Your task to perform on an android device: check data usage Image 0: 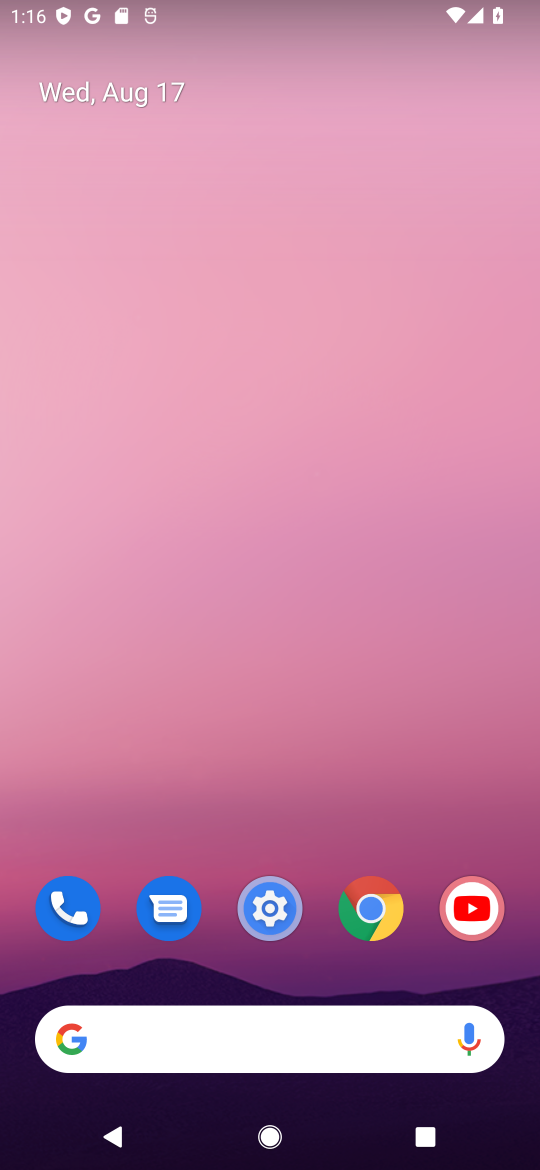
Step 0: click (257, 915)
Your task to perform on an android device: check data usage Image 1: 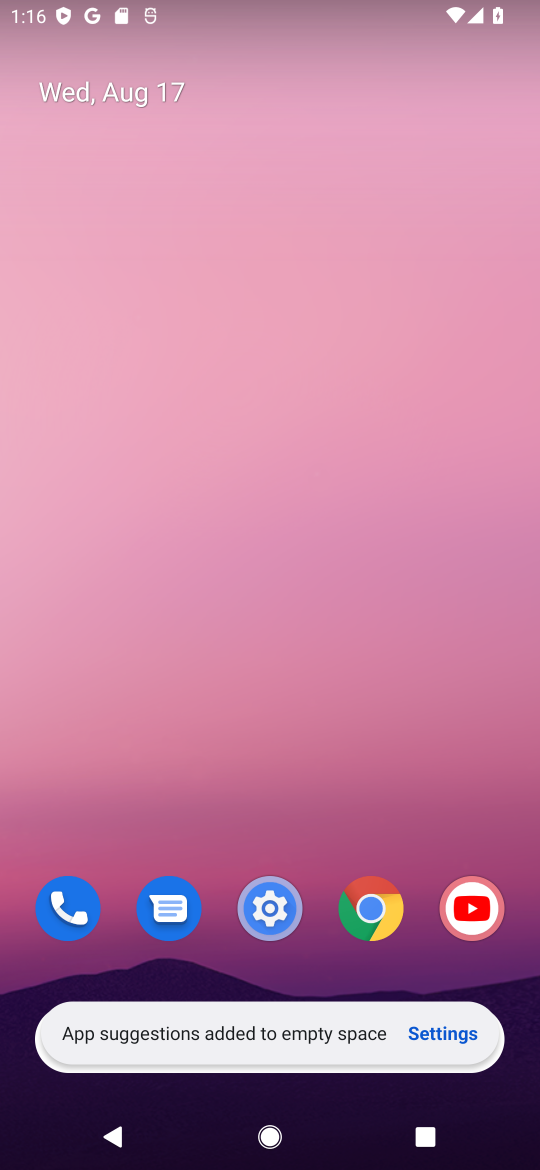
Step 1: click (260, 892)
Your task to perform on an android device: check data usage Image 2: 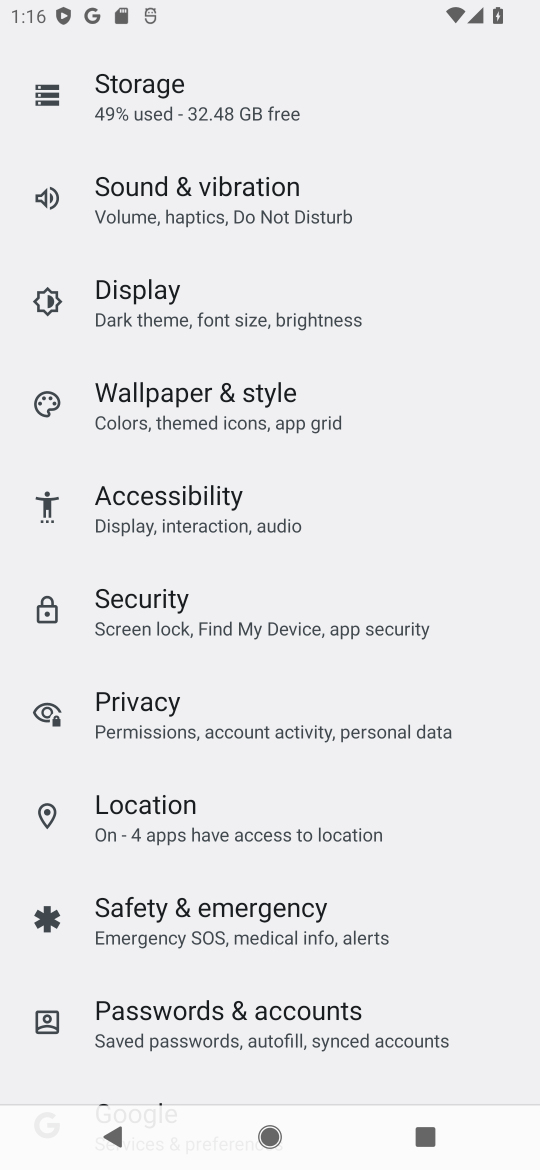
Step 2: drag from (361, 189) to (338, 1157)
Your task to perform on an android device: check data usage Image 3: 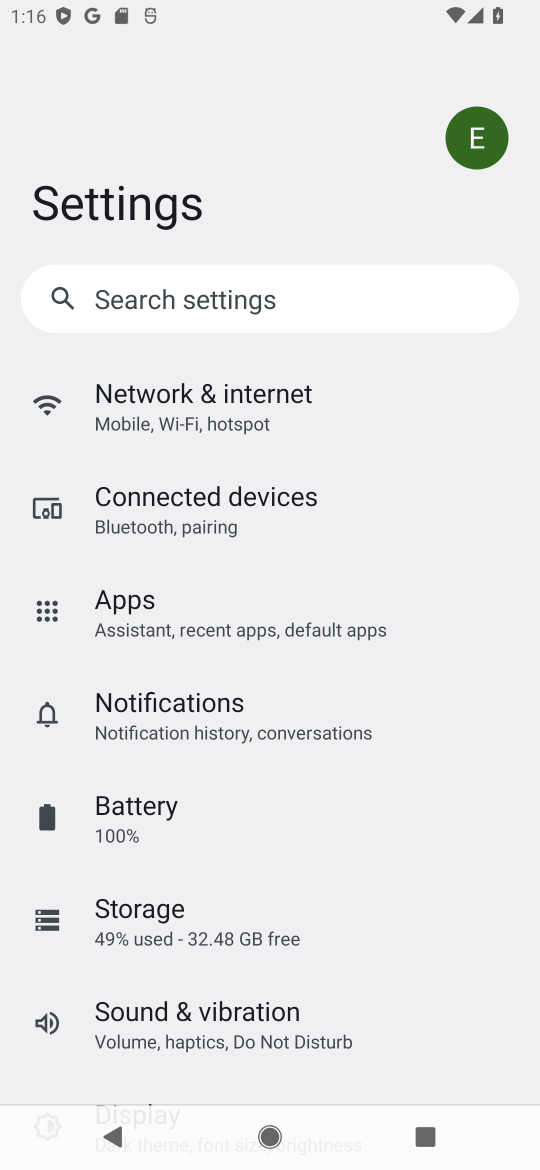
Step 3: click (222, 425)
Your task to perform on an android device: check data usage Image 4: 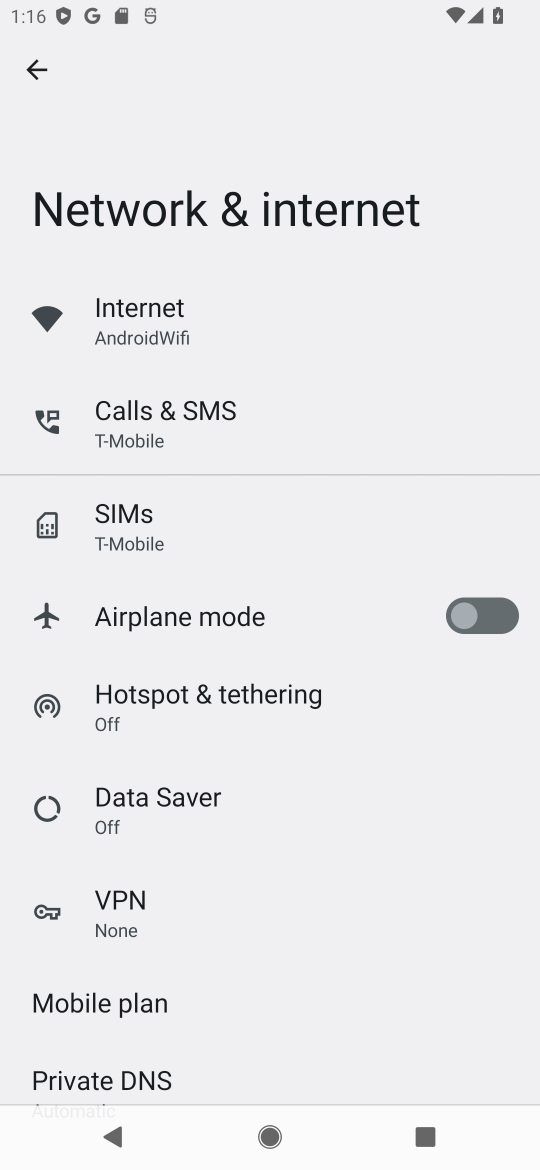
Step 4: task complete